Your task to perform on an android device: What is the news today? Image 0: 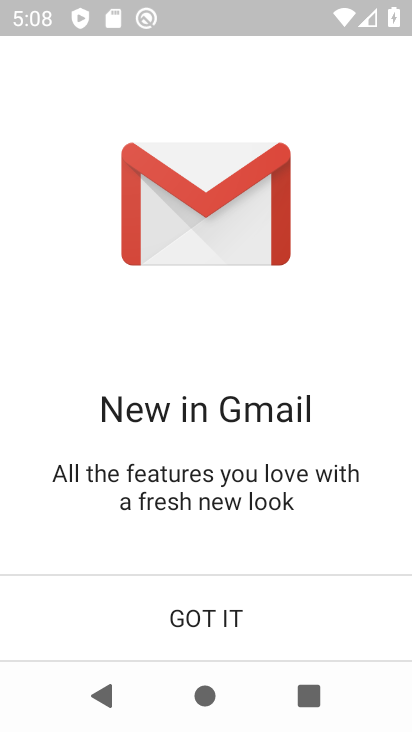
Step 0: press home button
Your task to perform on an android device: What is the news today? Image 1: 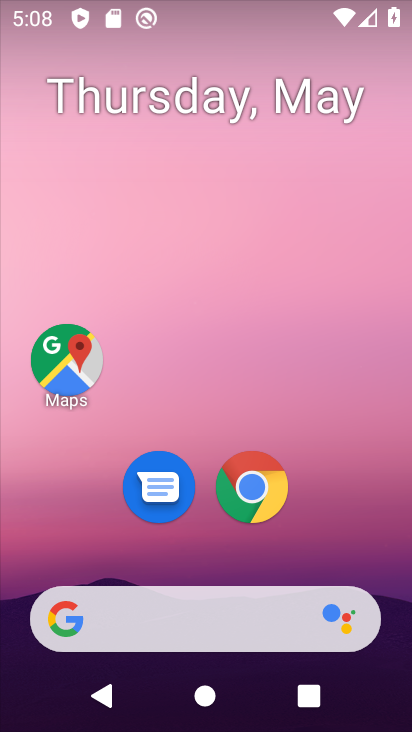
Step 1: click (209, 627)
Your task to perform on an android device: What is the news today? Image 2: 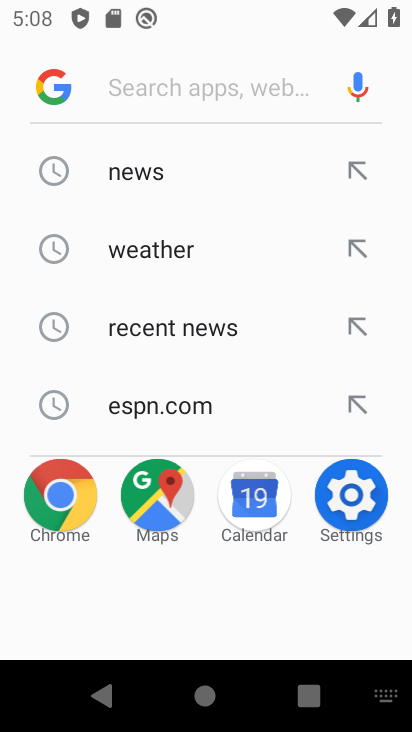
Step 2: click (130, 172)
Your task to perform on an android device: What is the news today? Image 3: 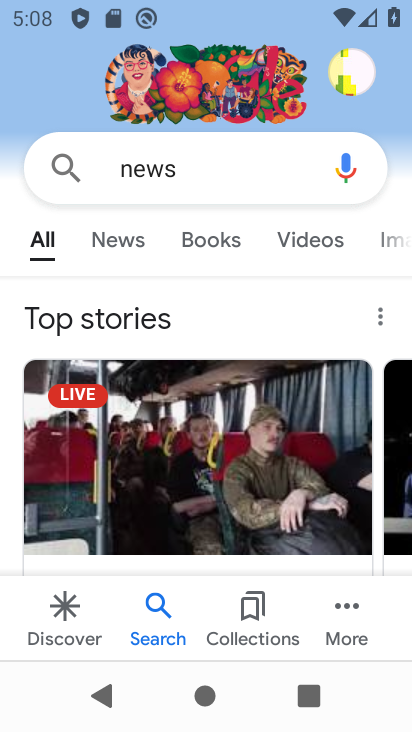
Step 3: click (131, 229)
Your task to perform on an android device: What is the news today? Image 4: 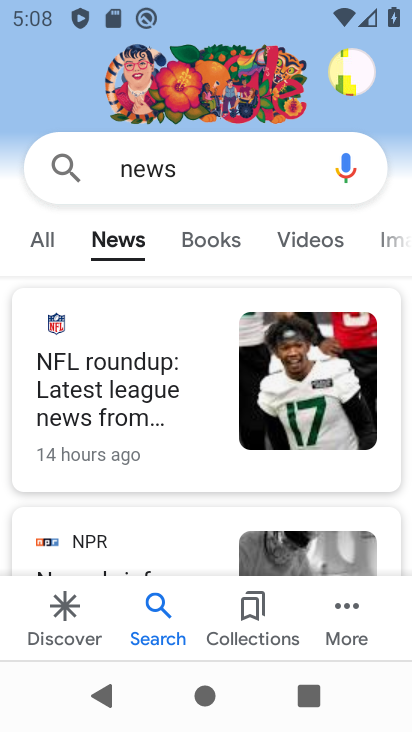
Step 4: task complete